Your task to perform on an android device: Go to sound settings Image 0: 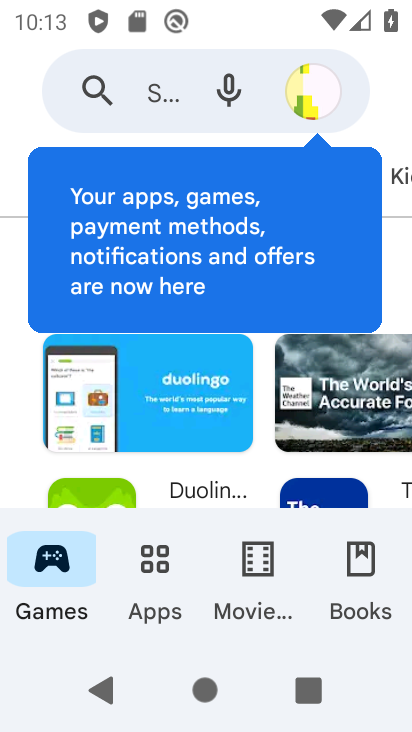
Step 0: press home button
Your task to perform on an android device: Go to sound settings Image 1: 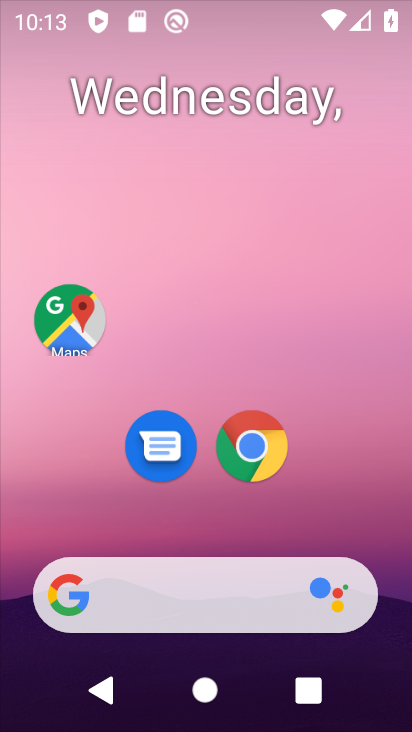
Step 1: drag from (349, 494) to (375, 195)
Your task to perform on an android device: Go to sound settings Image 2: 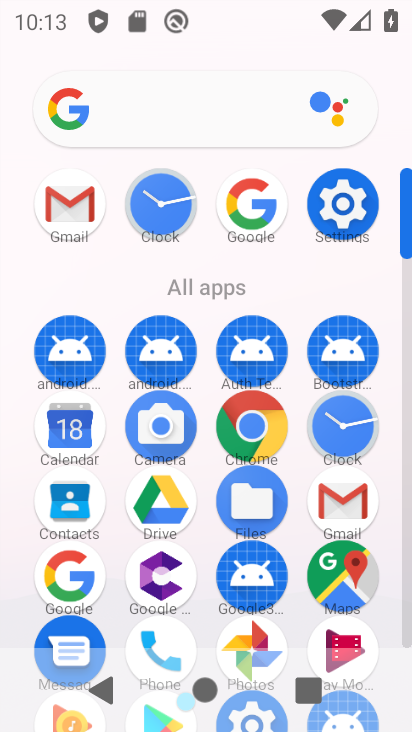
Step 2: click (356, 200)
Your task to perform on an android device: Go to sound settings Image 3: 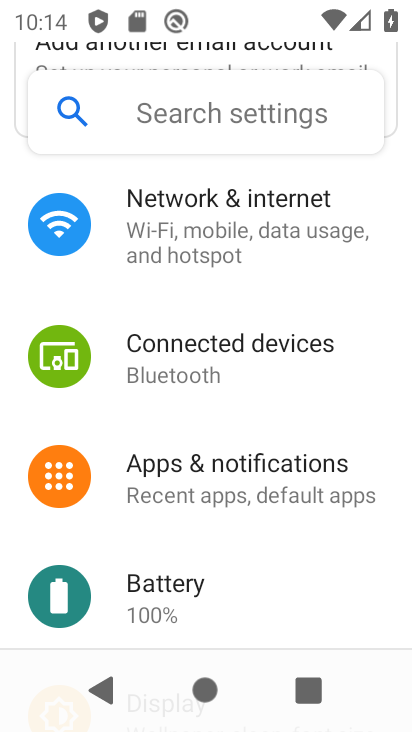
Step 3: drag from (258, 581) to (270, 314)
Your task to perform on an android device: Go to sound settings Image 4: 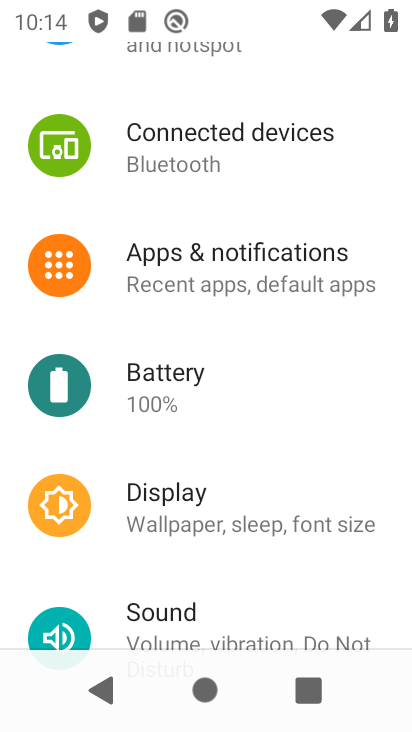
Step 4: click (189, 641)
Your task to perform on an android device: Go to sound settings Image 5: 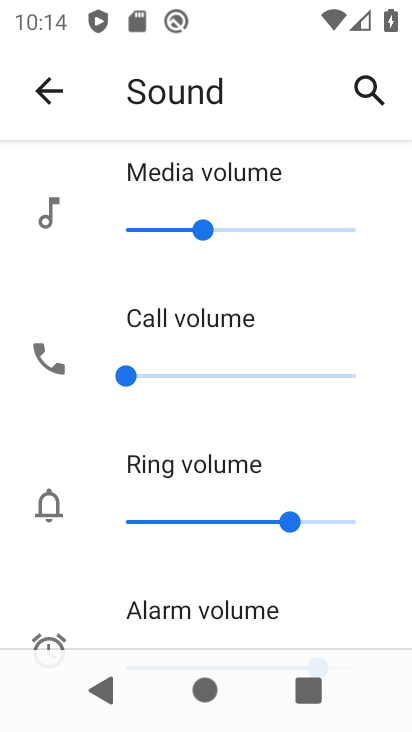
Step 5: task complete